Your task to perform on an android device: open a bookmark in the chrome app Image 0: 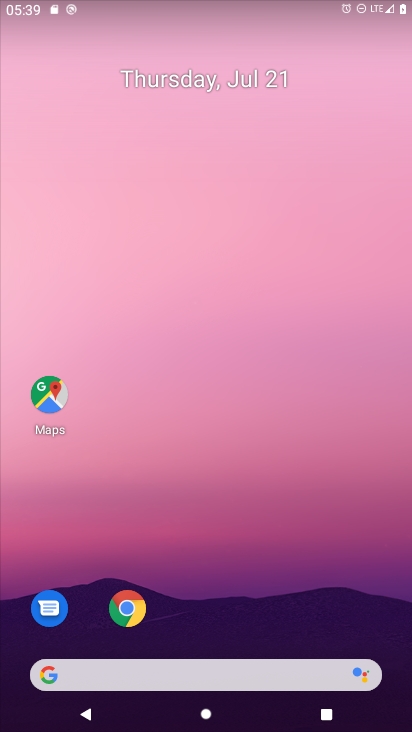
Step 0: drag from (309, 663) to (362, 154)
Your task to perform on an android device: open a bookmark in the chrome app Image 1: 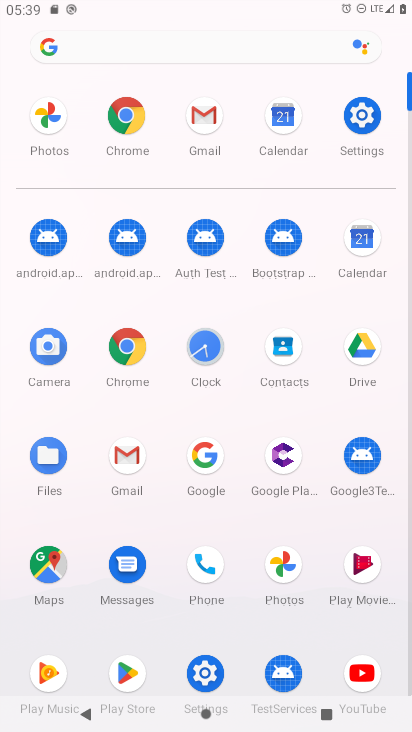
Step 1: click (126, 347)
Your task to perform on an android device: open a bookmark in the chrome app Image 2: 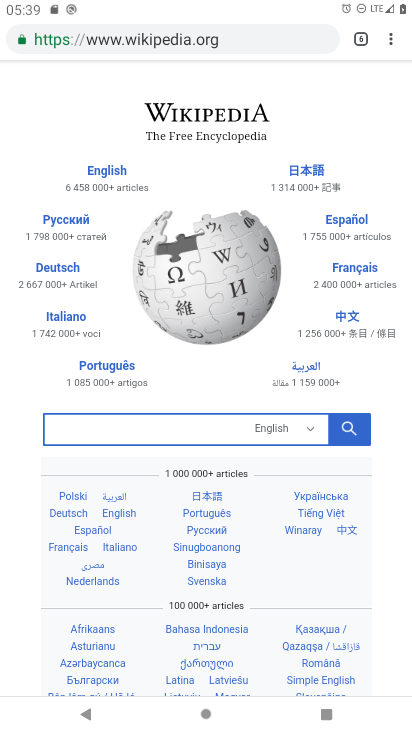
Step 2: task complete